Your task to perform on an android device: make emails show in primary in the gmail app Image 0: 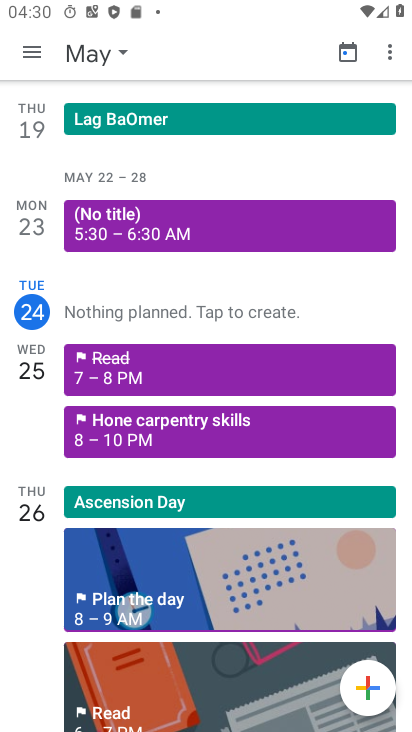
Step 0: press back button
Your task to perform on an android device: make emails show in primary in the gmail app Image 1: 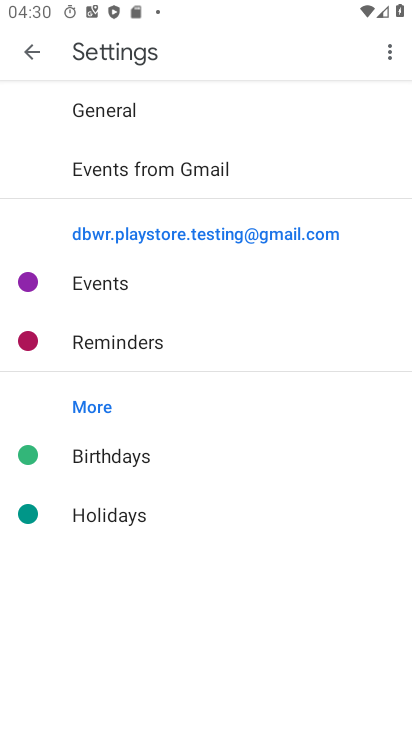
Step 1: press back button
Your task to perform on an android device: make emails show in primary in the gmail app Image 2: 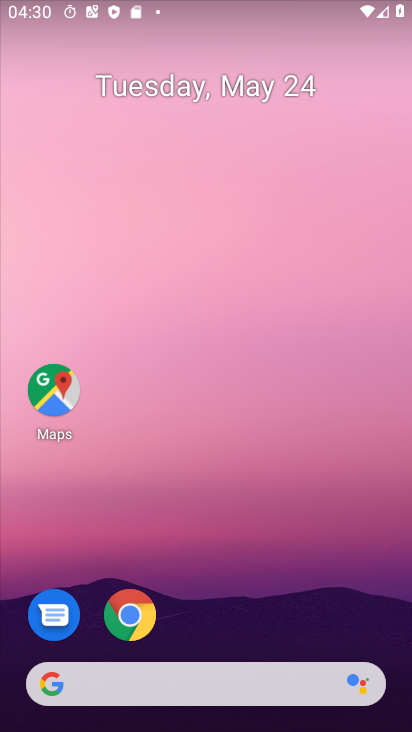
Step 2: drag from (226, 551) to (305, 66)
Your task to perform on an android device: make emails show in primary in the gmail app Image 3: 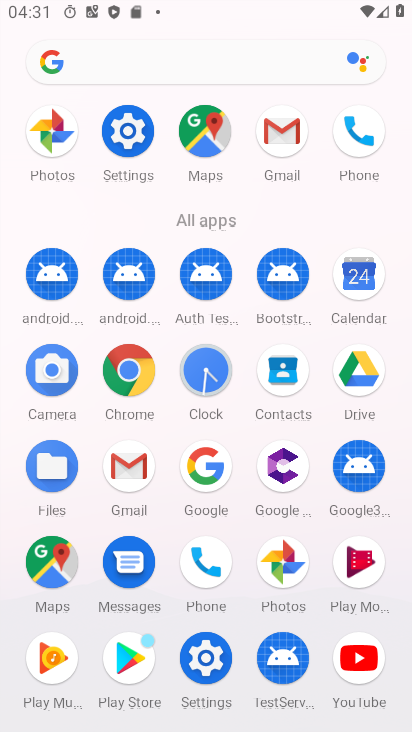
Step 3: click (280, 125)
Your task to perform on an android device: make emails show in primary in the gmail app Image 4: 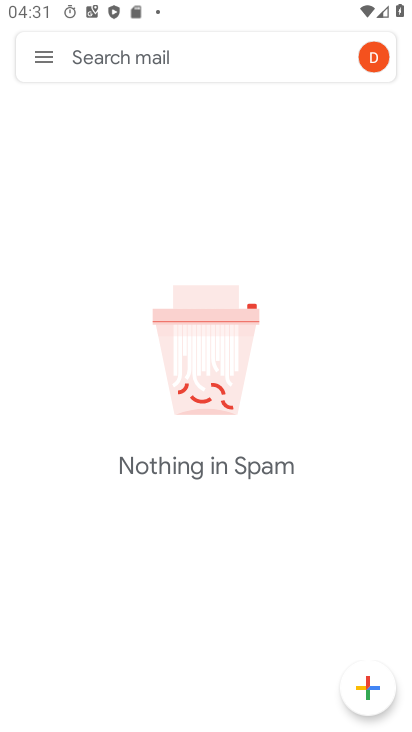
Step 4: click (42, 56)
Your task to perform on an android device: make emails show in primary in the gmail app Image 5: 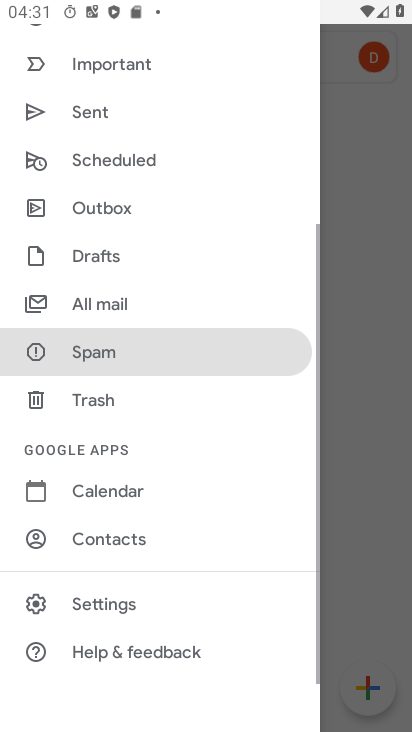
Step 5: click (107, 610)
Your task to perform on an android device: make emails show in primary in the gmail app Image 6: 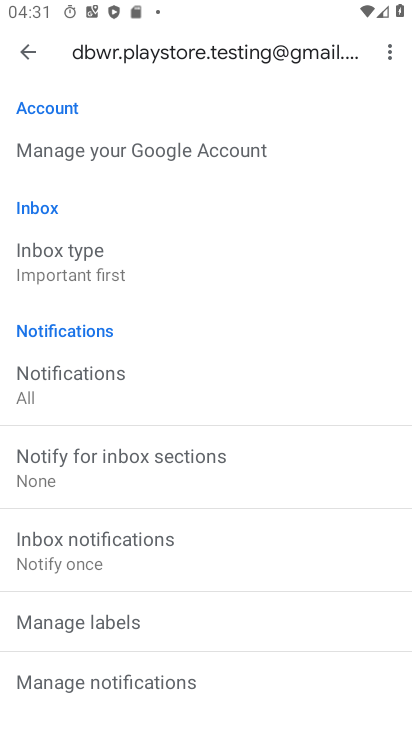
Step 6: task complete